Your task to perform on an android device: Open accessibility settings Image 0: 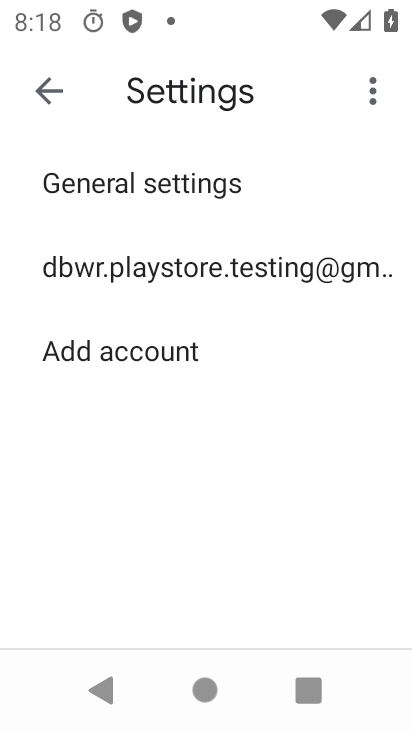
Step 0: press home button
Your task to perform on an android device: Open accessibility settings Image 1: 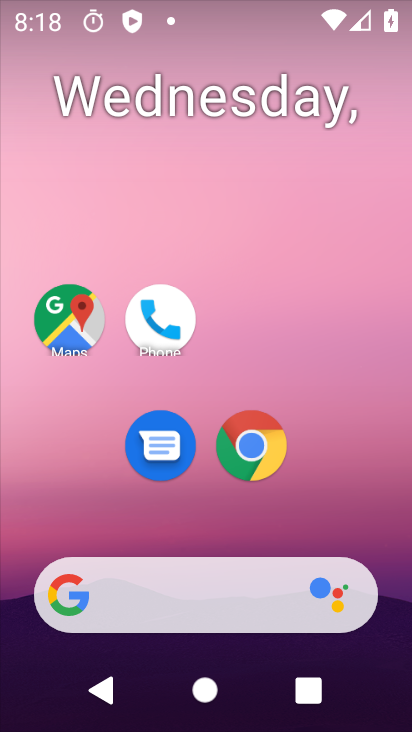
Step 1: drag from (302, 513) to (345, 135)
Your task to perform on an android device: Open accessibility settings Image 2: 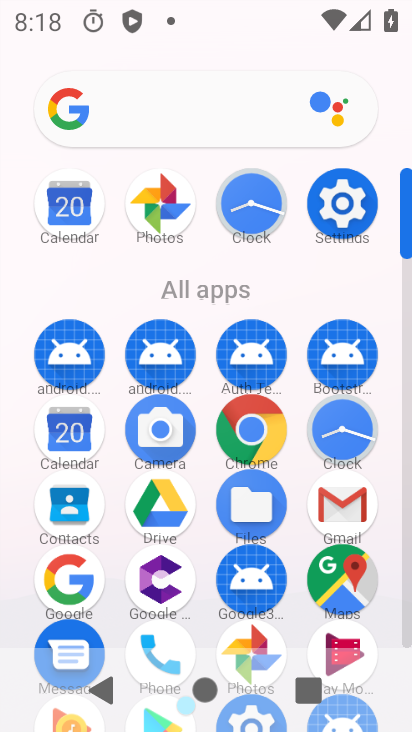
Step 2: click (325, 185)
Your task to perform on an android device: Open accessibility settings Image 3: 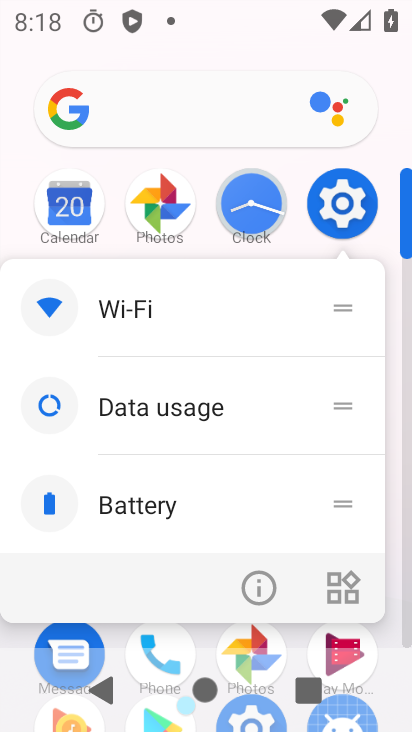
Step 3: click (339, 210)
Your task to perform on an android device: Open accessibility settings Image 4: 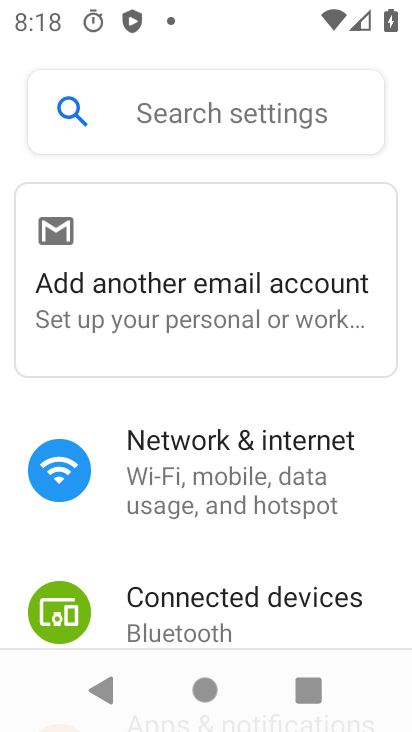
Step 4: drag from (248, 557) to (287, 287)
Your task to perform on an android device: Open accessibility settings Image 5: 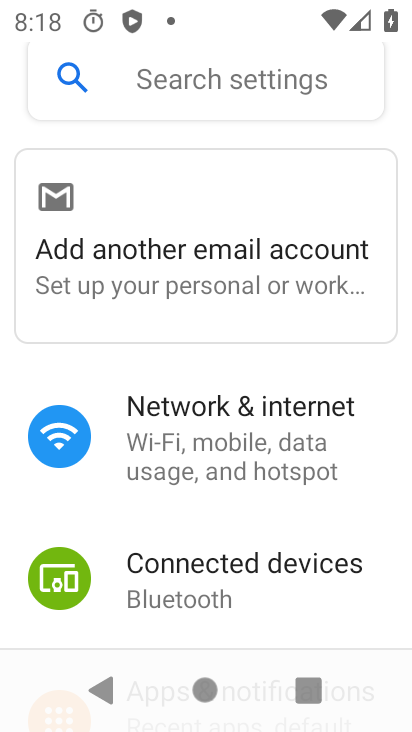
Step 5: drag from (264, 552) to (306, 308)
Your task to perform on an android device: Open accessibility settings Image 6: 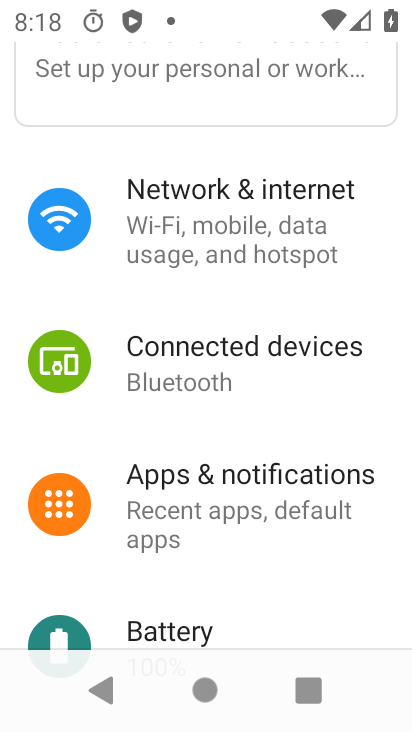
Step 6: drag from (263, 607) to (274, 265)
Your task to perform on an android device: Open accessibility settings Image 7: 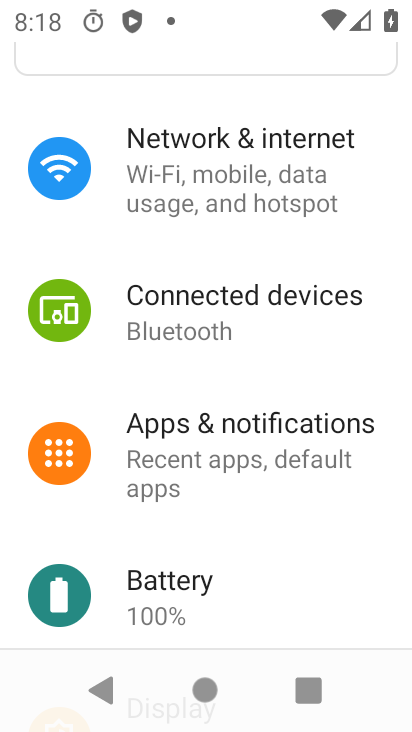
Step 7: drag from (279, 561) to (231, 299)
Your task to perform on an android device: Open accessibility settings Image 8: 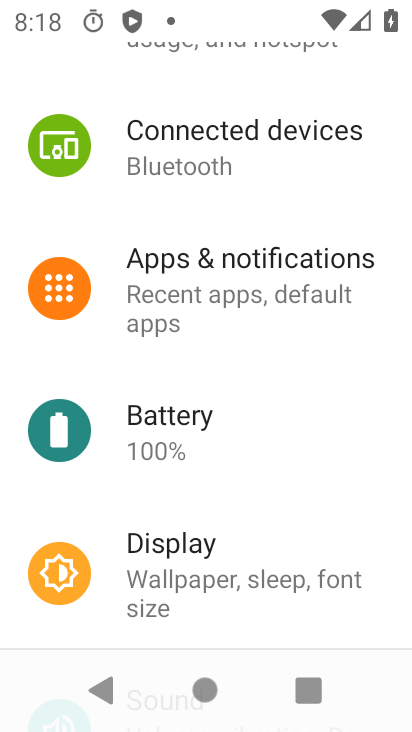
Step 8: drag from (199, 382) to (178, 222)
Your task to perform on an android device: Open accessibility settings Image 9: 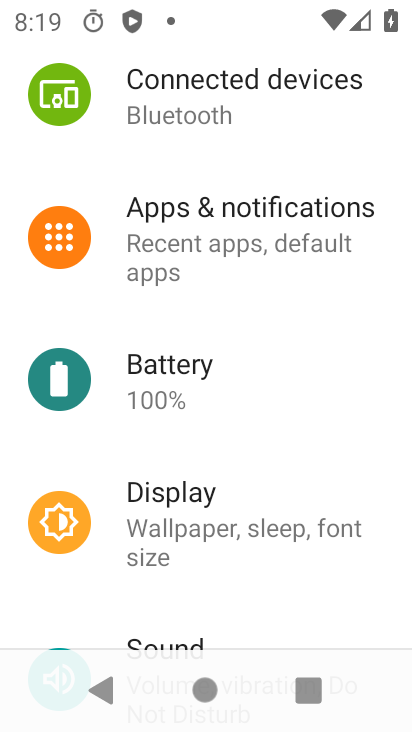
Step 9: drag from (252, 553) to (275, 288)
Your task to perform on an android device: Open accessibility settings Image 10: 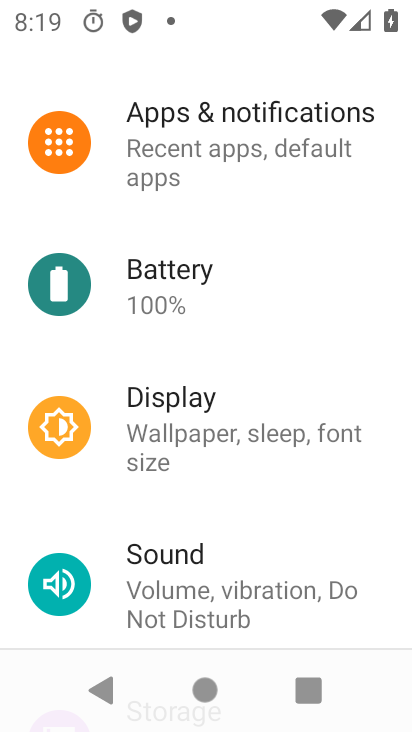
Step 10: drag from (264, 500) to (286, 224)
Your task to perform on an android device: Open accessibility settings Image 11: 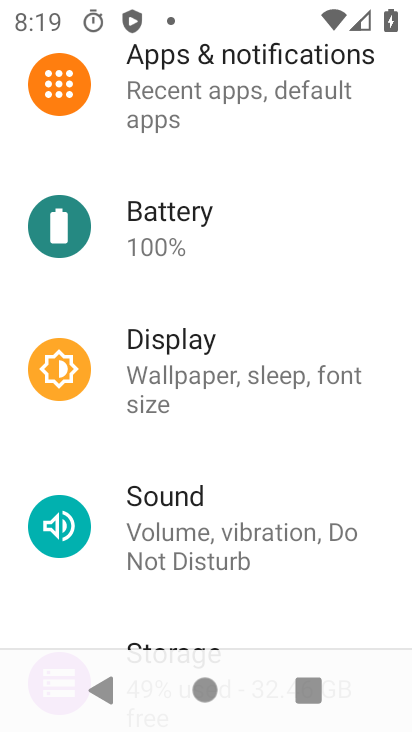
Step 11: drag from (240, 585) to (309, 223)
Your task to perform on an android device: Open accessibility settings Image 12: 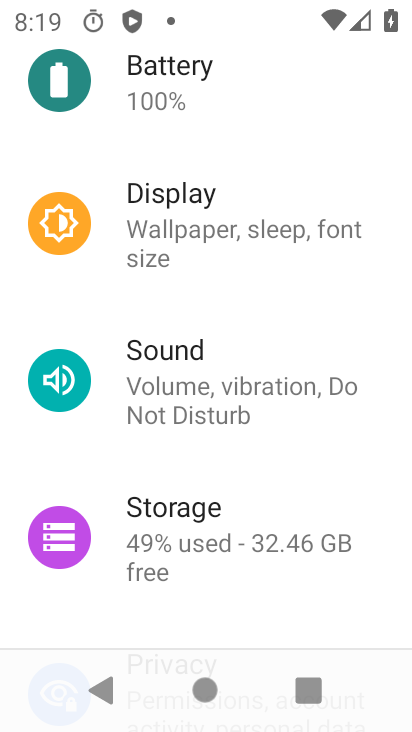
Step 12: drag from (279, 467) to (310, 176)
Your task to perform on an android device: Open accessibility settings Image 13: 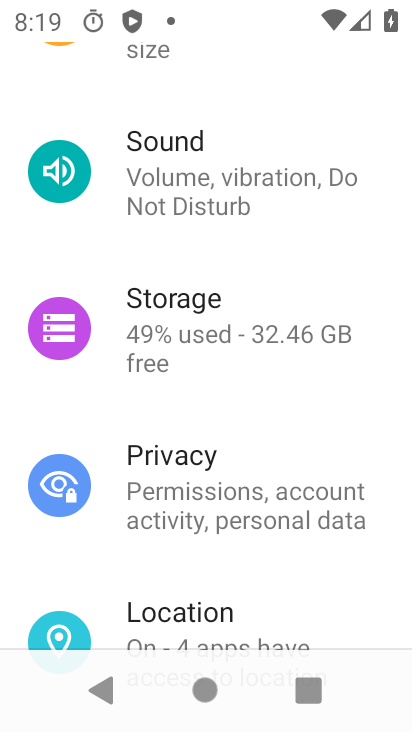
Step 13: drag from (238, 599) to (263, 210)
Your task to perform on an android device: Open accessibility settings Image 14: 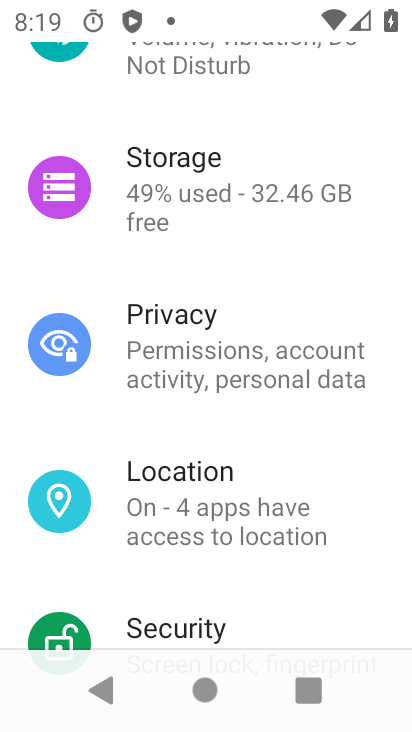
Step 14: drag from (283, 547) to (331, 156)
Your task to perform on an android device: Open accessibility settings Image 15: 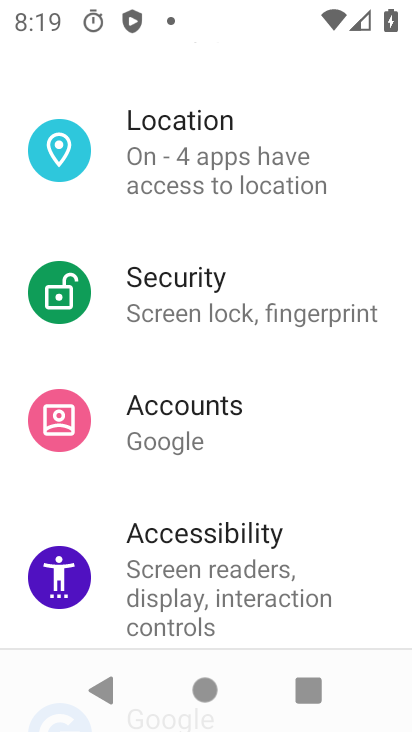
Step 15: click (200, 576)
Your task to perform on an android device: Open accessibility settings Image 16: 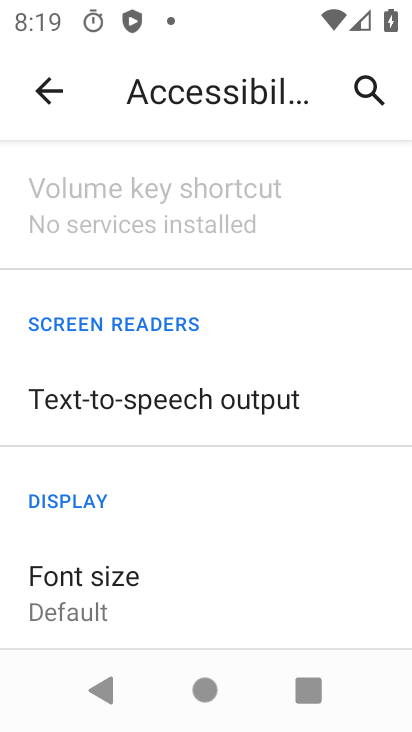
Step 16: task complete